Your task to perform on an android device: add a label to a message in the gmail app Image 0: 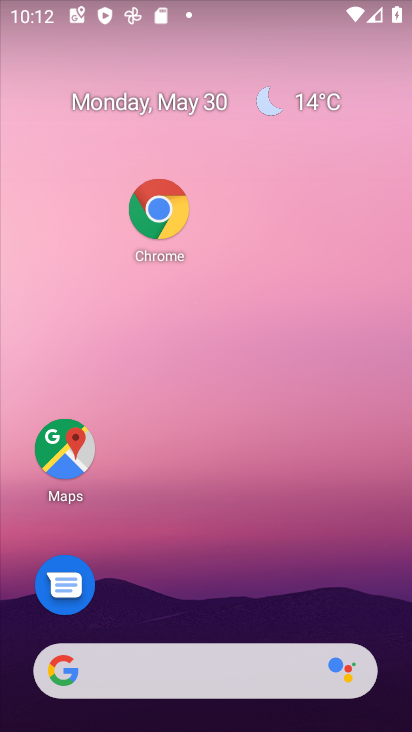
Step 0: drag from (235, 563) to (251, 143)
Your task to perform on an android device: add a label to a message in the gmail app Image 1: 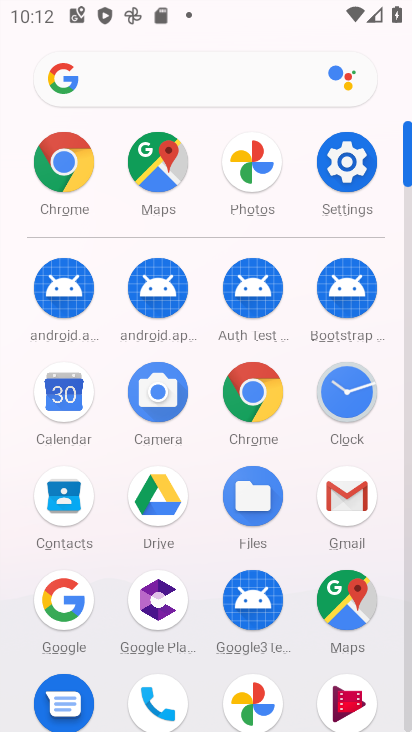
Step 1: click (343, 501)
Your task to perform on an android device: add a label to a message in the gmail app Image 2: 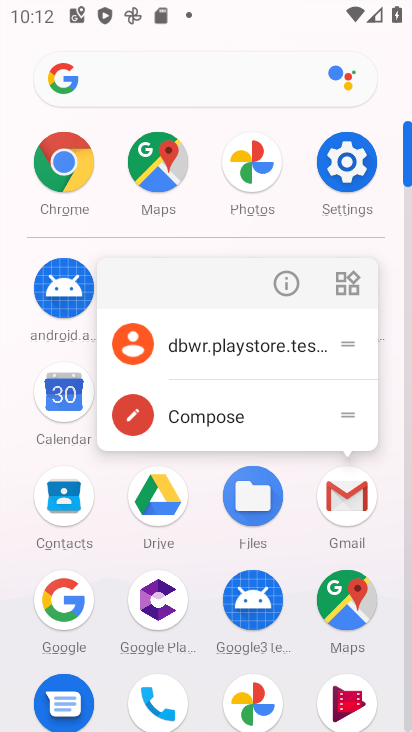
Step 2: click (289, 282)
Your task to perform on an android device: add a label to a message in the gmail app Image 3: 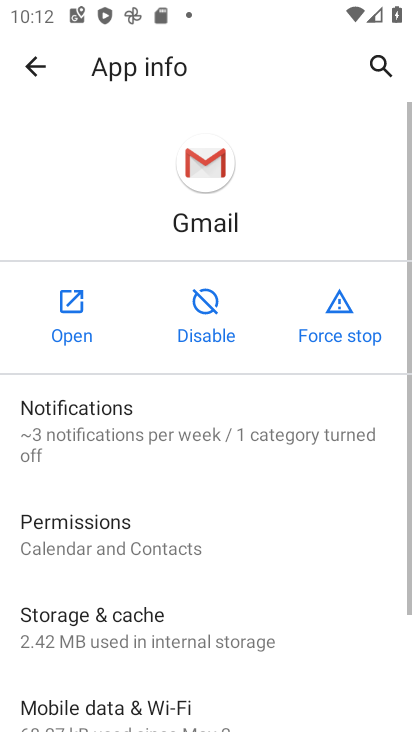
Step 3: click (71, 317)
Your task to perform on an android device: add a label to a message in the gmail app Image 4: 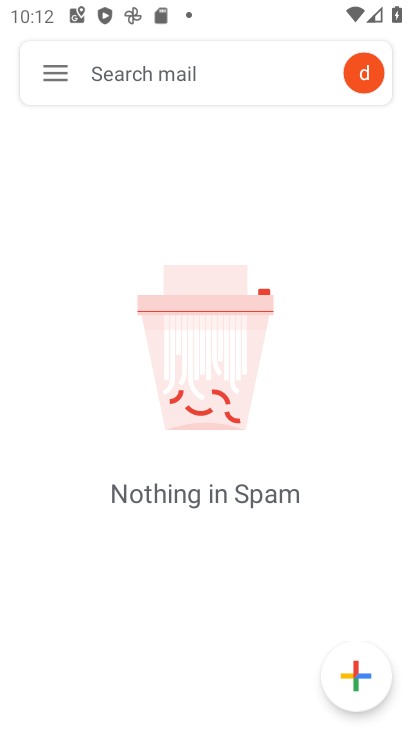
Step 4: click (48, 86)
Your task to perform on an android device: add a label to a message in the gmail app Image 5: 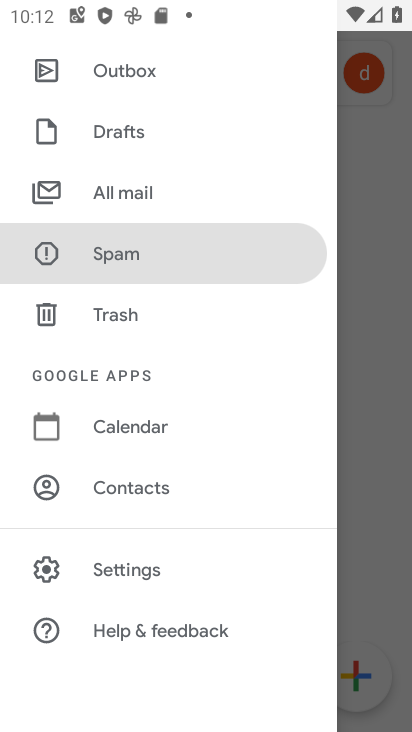
Step 5: click (106, 264)
Your task to perform on an android device: add a label to a message in the gmail app Image 6: 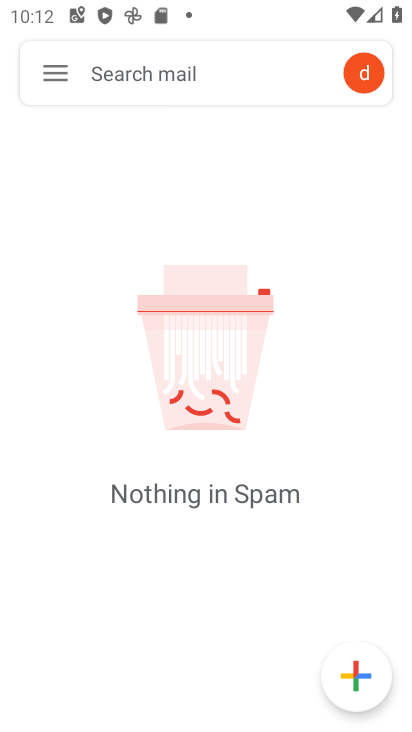
Step 6: click (52, 84)
Your task to perform on an android device: add a label to a message in the gmail app Image 7: 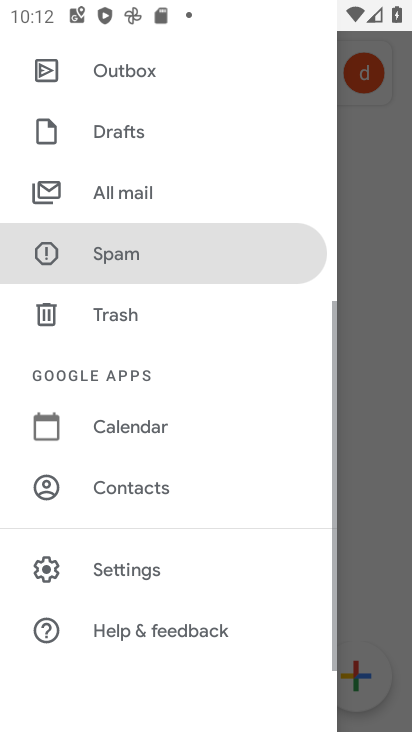
Step 7: drag from (140, 180) to (312, 724)
Your task to perform on an android device: add a label to a message in the gmail app Image 8: 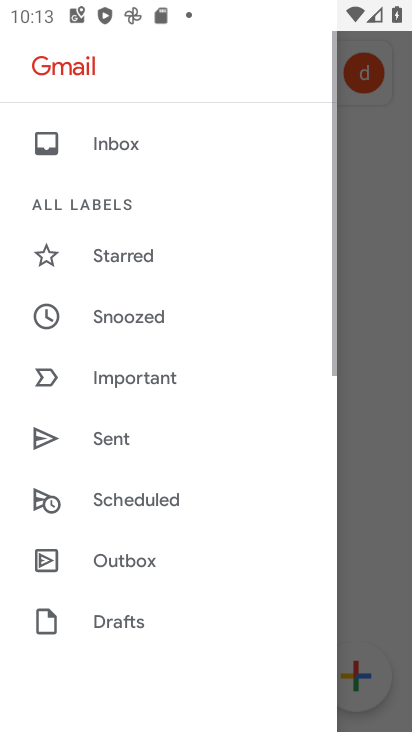
Step 8: click (81, 144)
Your task to perform on an android device: add a label to a message in the gmail app Image 9: 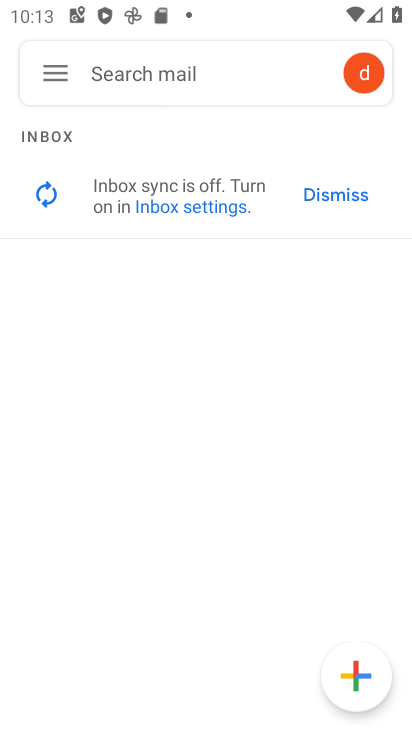
Step 9: task complete